Your task to perform on an android device: open app "Lyft - Rideshare, Bikes, Scooters & Transit" (install if not already installed) and enter user name: "deliberating@gmail.com" and password: "preyed" Image 0: 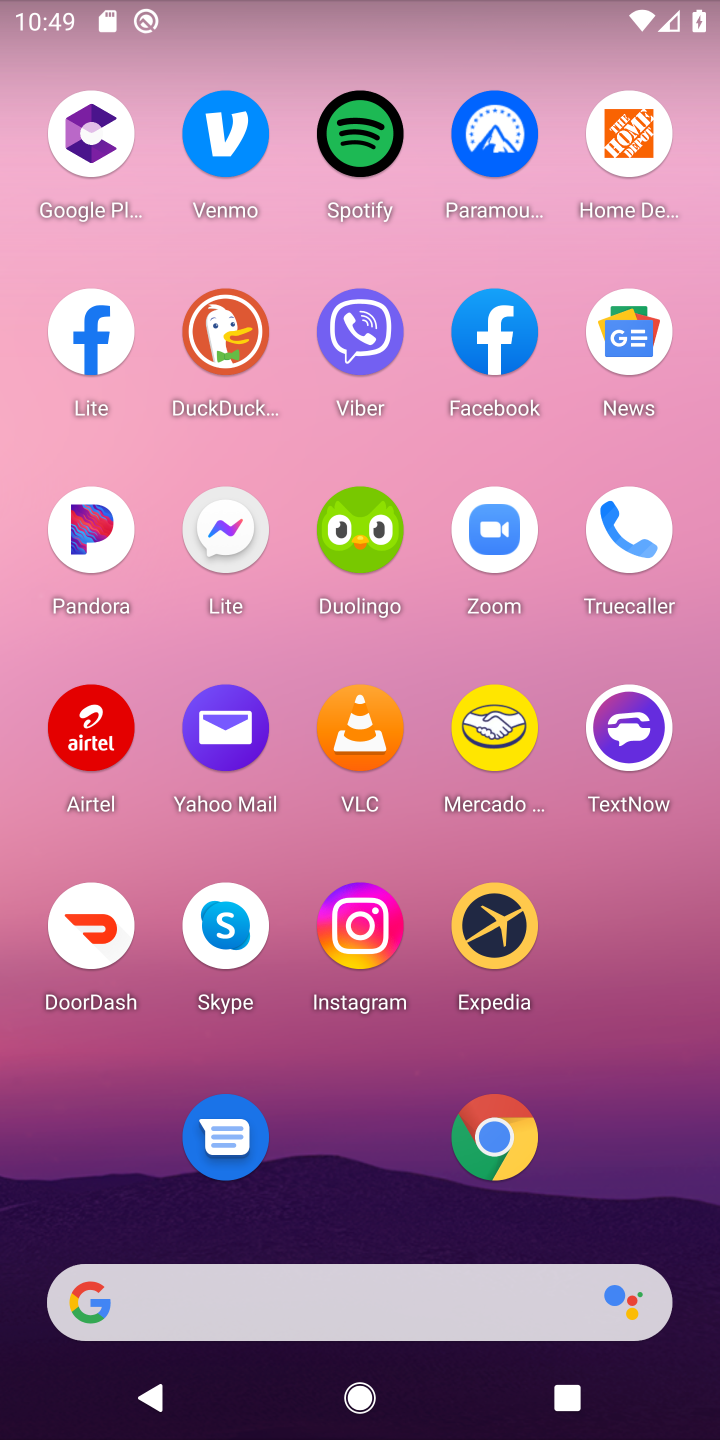
Step 0: drag from (317, 1200) to (332, 471)
Your task to perform on an android device: open app "Lyft - Rideshare, Bikes, Scooters & Transit" (install if not already installed) and enter user name: "deliberating@gmail.com" and password: "preyed" Image 1: 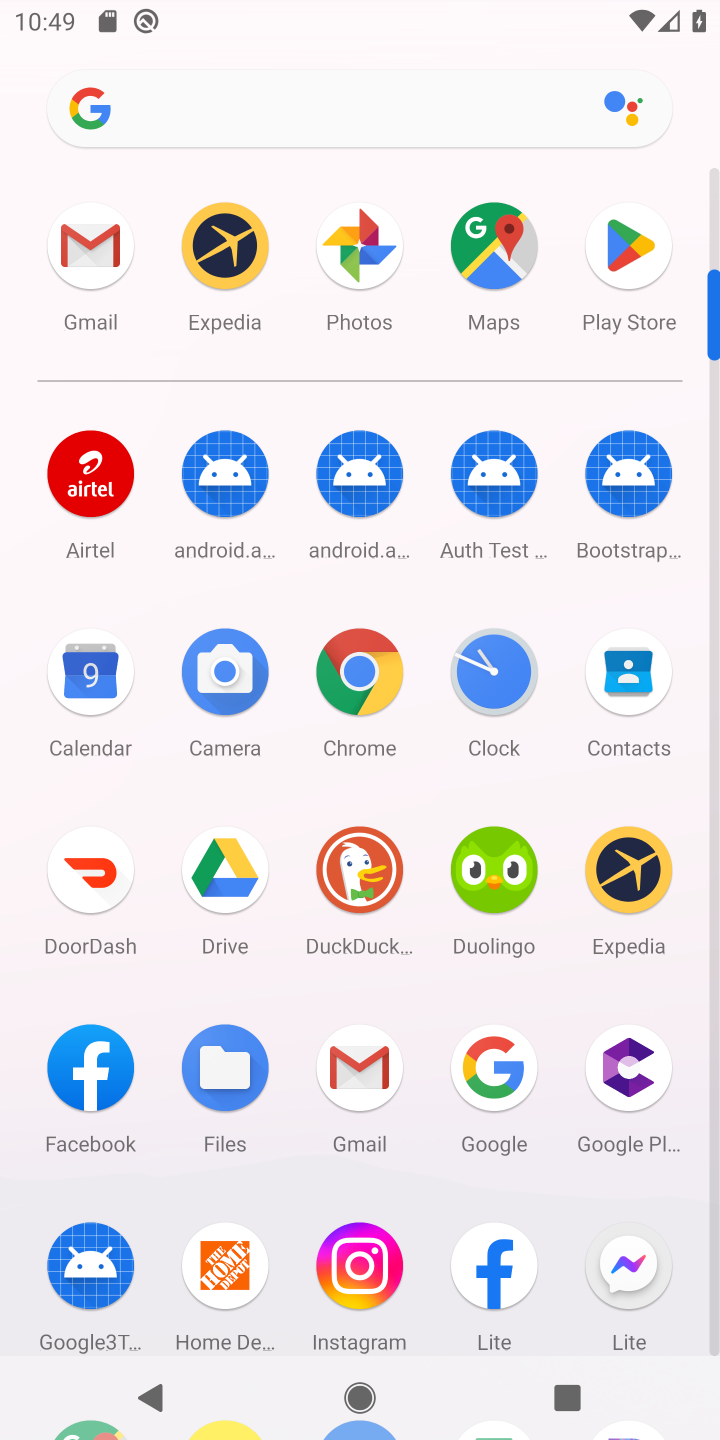
Step 1: click (620, 258)
Your task to perform on an android device: open app "Lyft - Rideshare, Bikes, Scooters & Transit" (install if not already installed) and enter user name: "deliberating@gmail.com" and password: "preyed" Image 2: 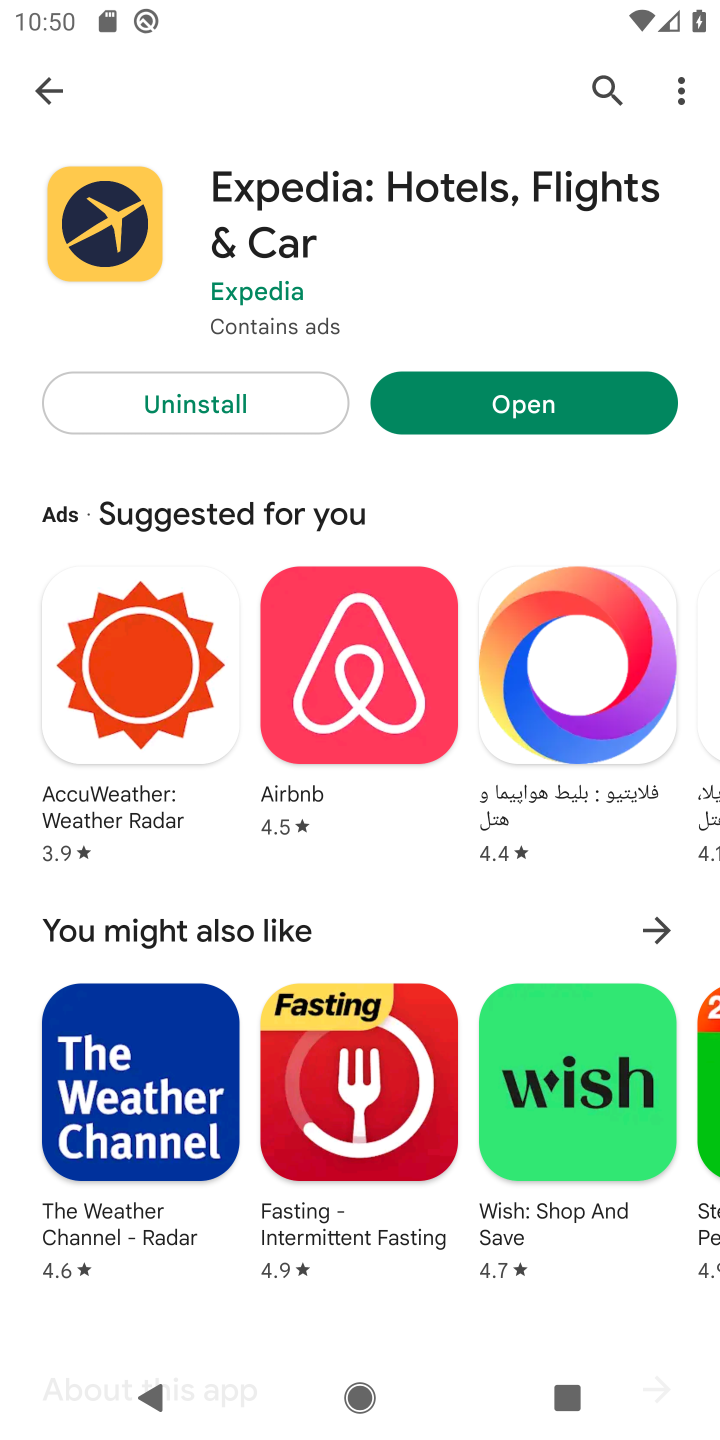
Step 2: click (619, 105)
Your task to perform on an android device: open app "Lyft - Rideshare, Bikes, Scooters & Transit" (install if not already installed) and enter user name: "deliberating@gmail.com" and password: "preyed" Image 3: 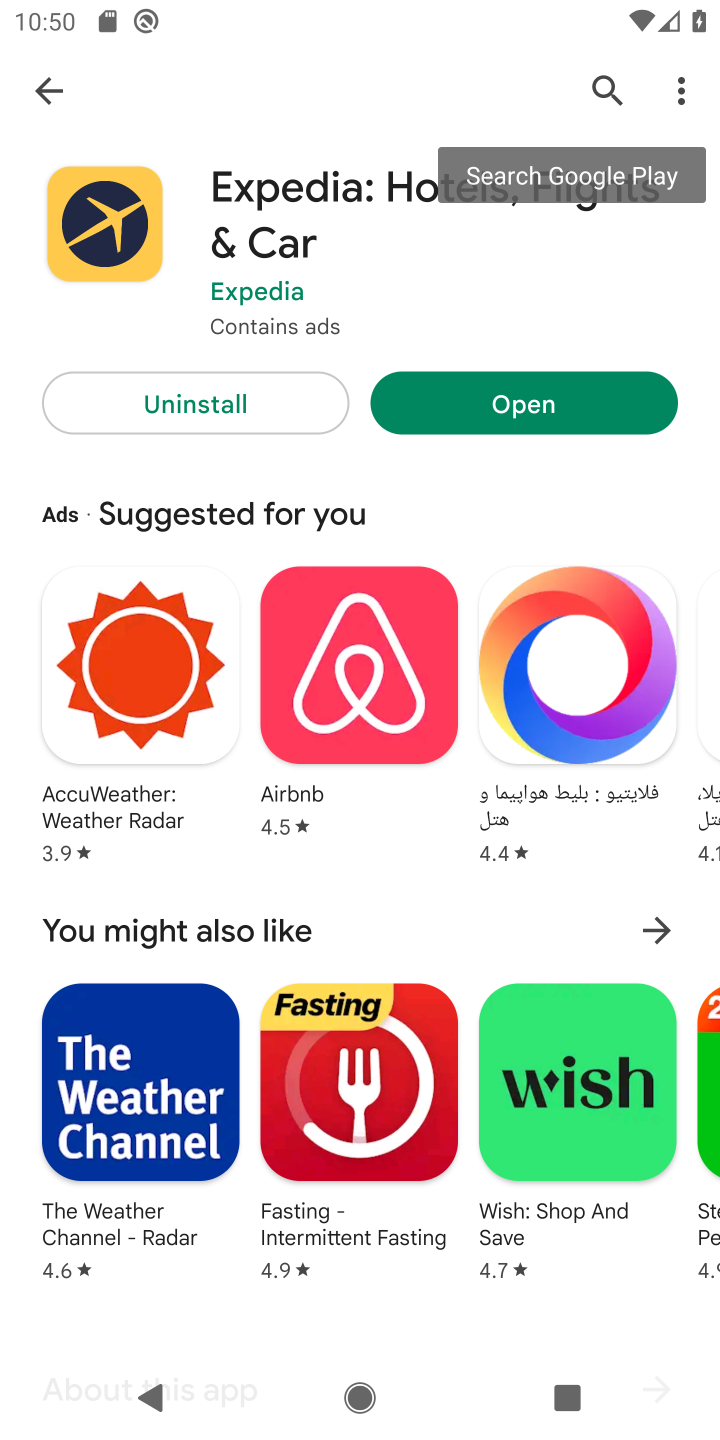
Step 3: click (589, 81)
Your task to perform on an android device: open app "Lyft - Rideshare, Bikes, Scooters & Transit" (install if not already installed) and enter user name: "deliberating@gmail.com" and password: "preyed" Image 4: 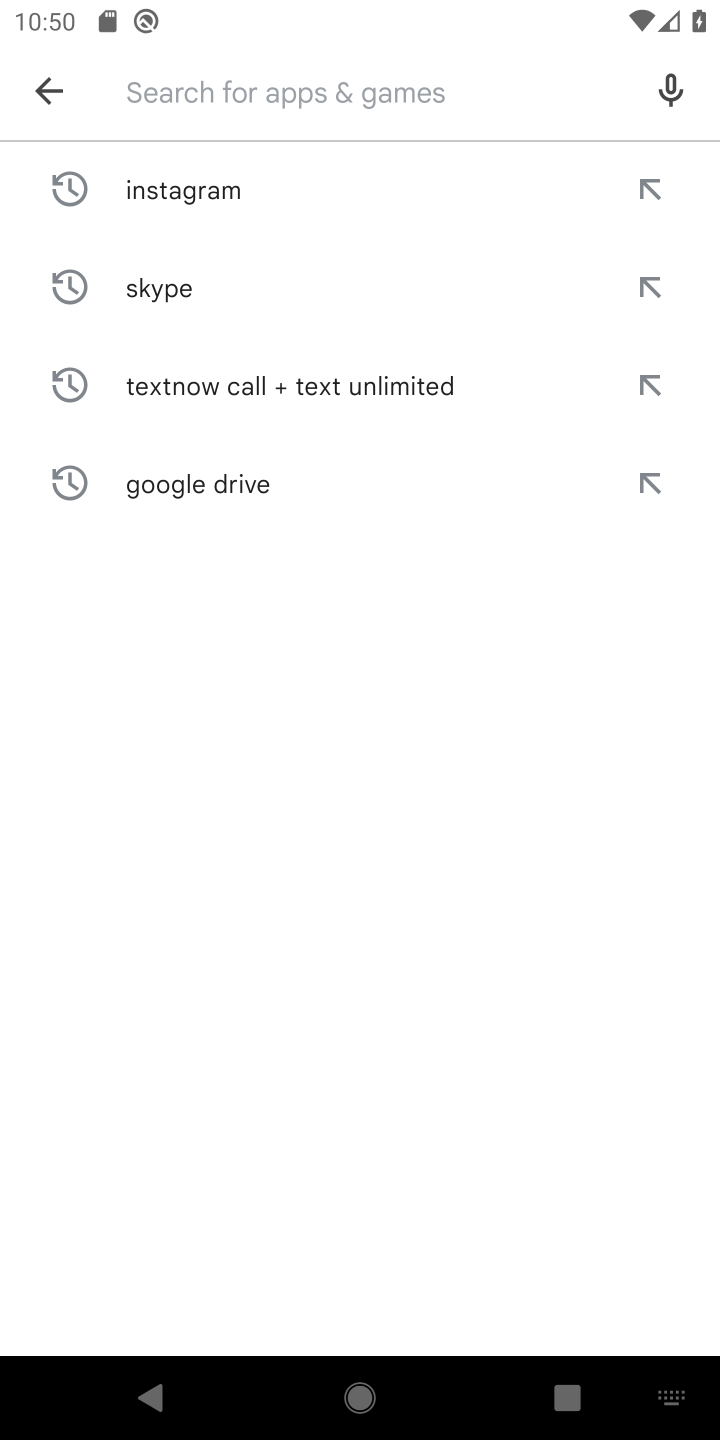
Step 4: type "Lyft - Rideshare, Bikes, Scooters & Transit"
Your task to perform on an android device: open app "Lyft - Rideshare, Bikes, Scooters & Transit" (install if not already installed) and enter user name: "deliberating@gmail.com" and password: "preyed" Image 5: 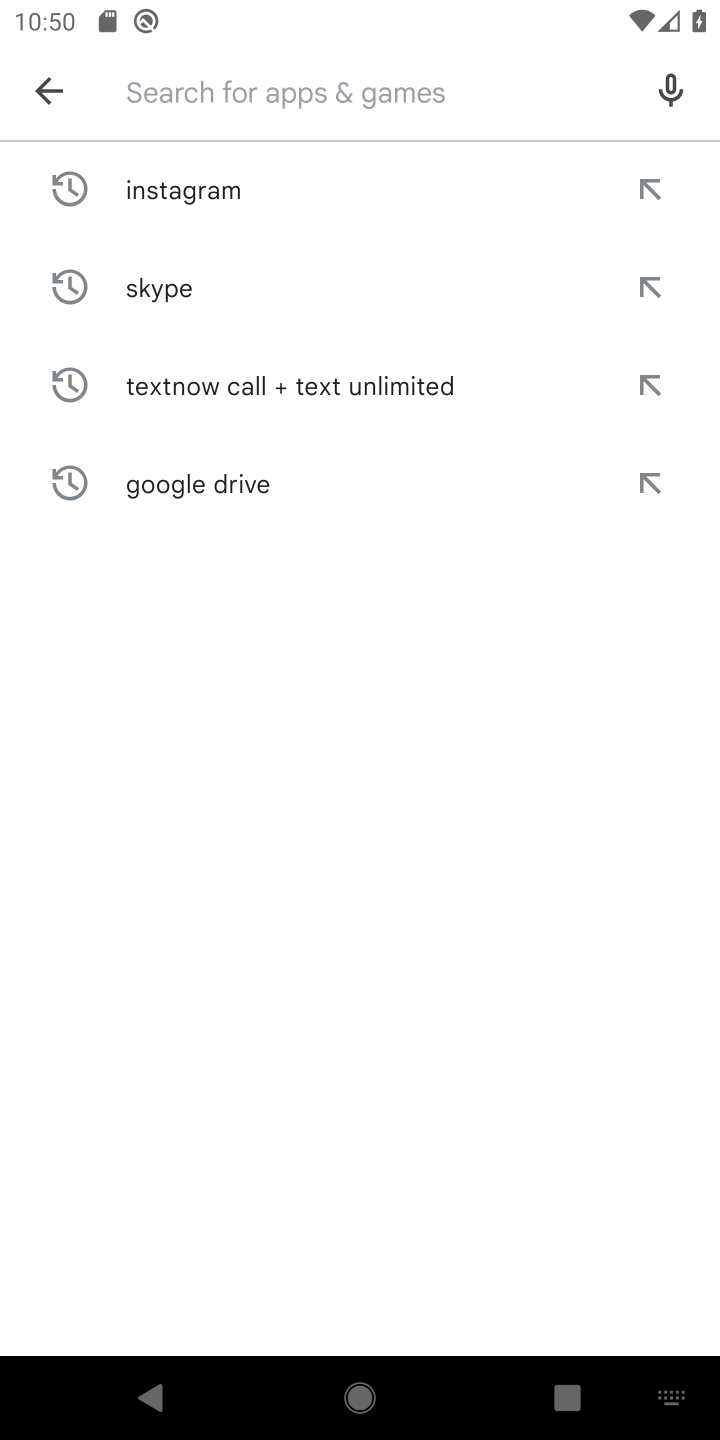
Step 5: click (277, 91)
Your task to perform on an android device: open app "Lyft - Rideshare, Bikes, Scooters & Transit" (install if not already installed) and enter user name: "deliberating@gmail.com" and password: "preyed" Image 6: 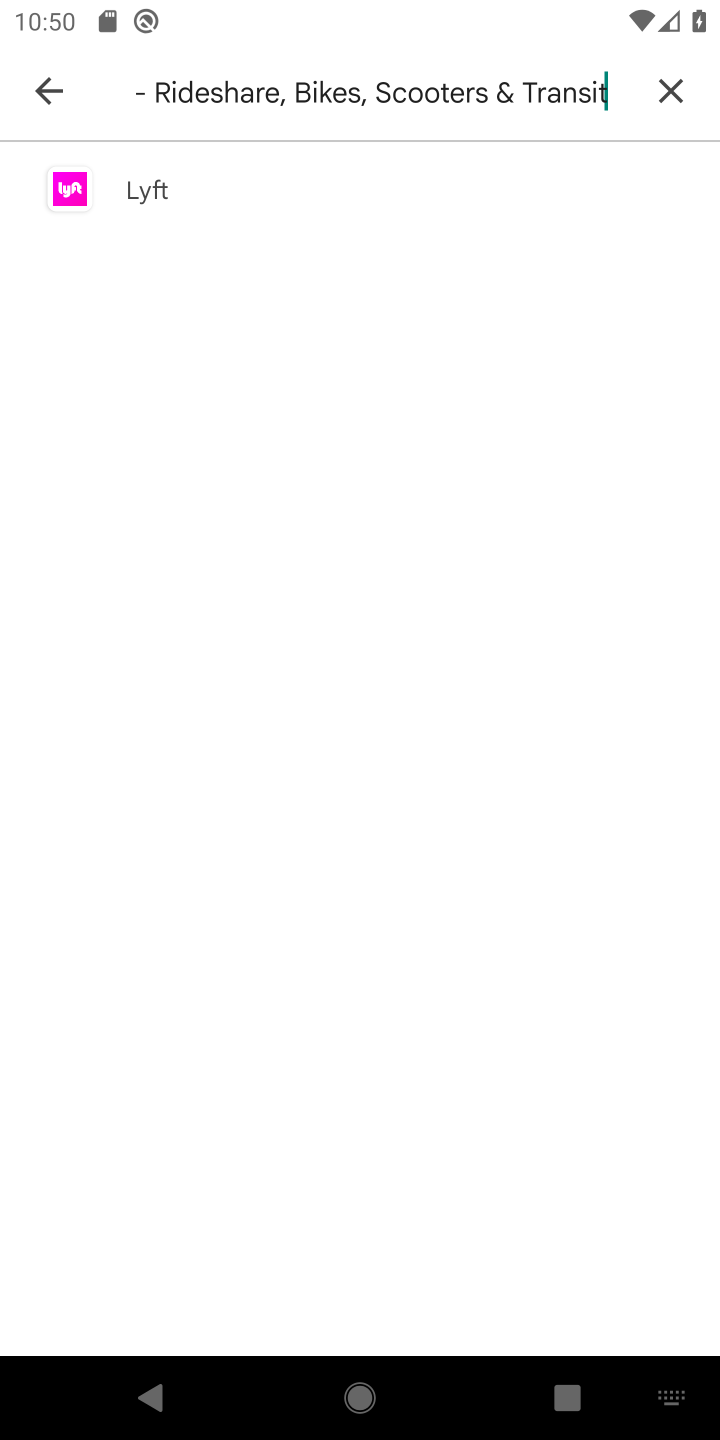
Step 6: type ""
Your task to perform on an android device: open app "Lyft - Rideshare, Bikes, Scooters & Transit" (install if not already installed) and enter user name: "deliberating@gmail.com" and password: "preyed" Image 7: 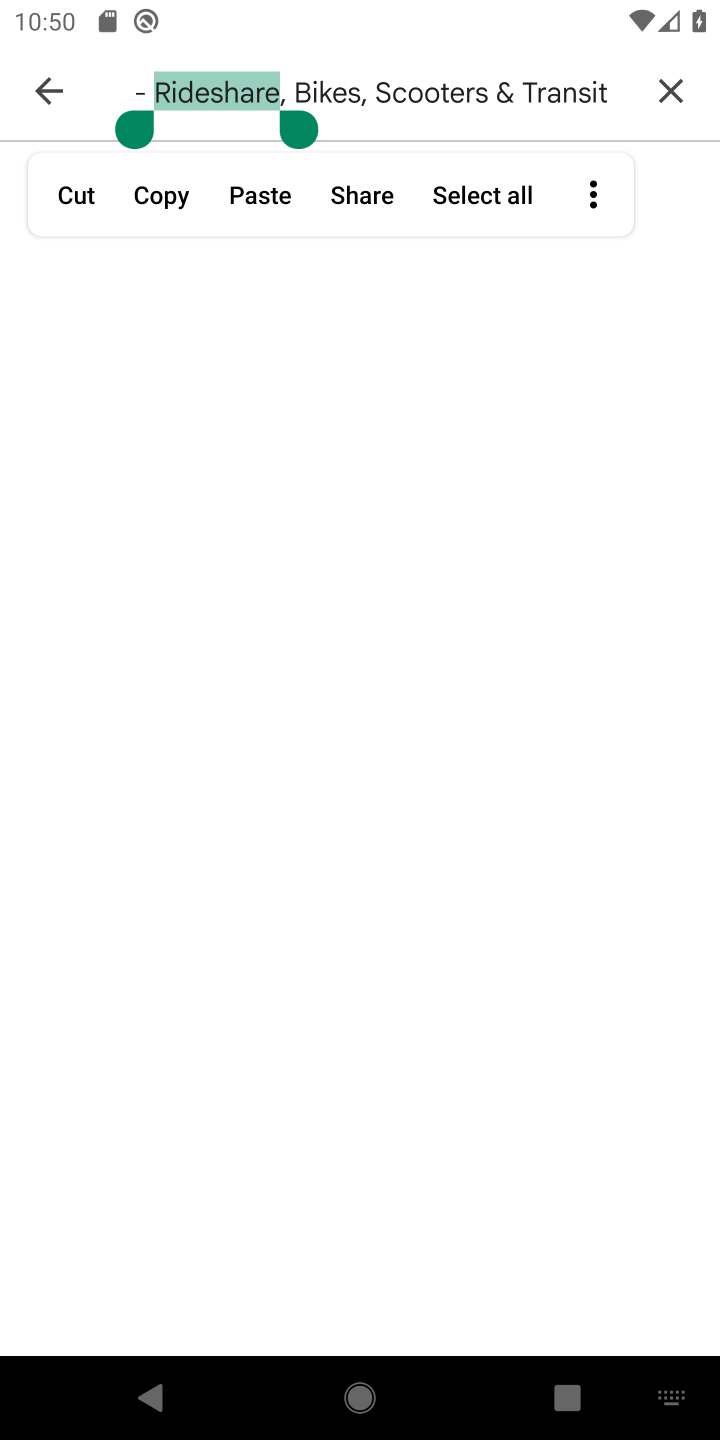
Step 7: click (134, 190)
Your task to perform on an android device: open app "Lyft - Rideshare, Bikes, Scooters & Transit" (install if not already installed) and enter user name: "deliberating@gmail.com" and password: "preyed" Image 8: 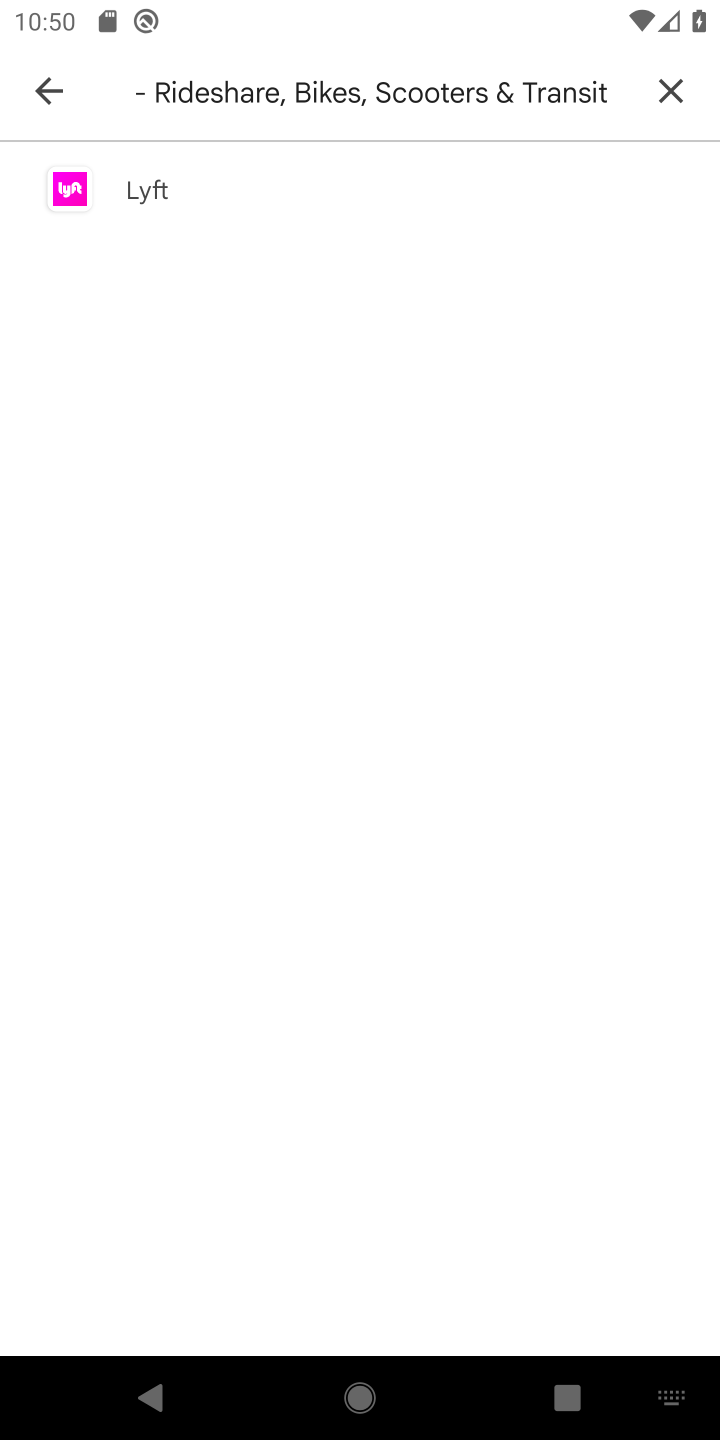
Step 8: click (160, 187)
Your task to perform on an android device: open app "Lyft - Rideshare, Bikes, Scooters & Transit" (install if not already installed) and enter user name: "deliberating@gmail.com" and password: "preyed" Image 9: 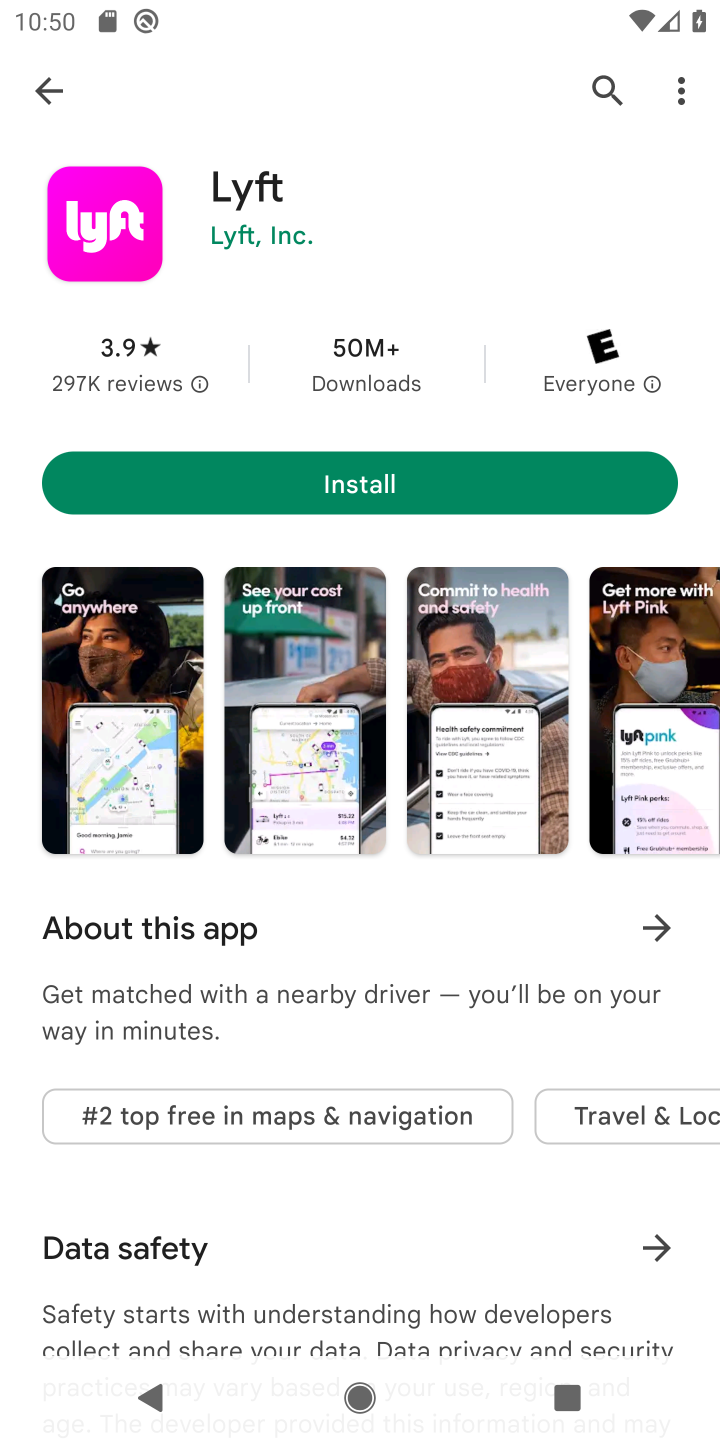
Step 9: click (422, 484)
Your task to perform on an android device: open app "Lyft - Rideshare, Bikes, Scooters & Transit" (install if not already installed) and enter user name: "deliberating@gmail.com" and password: "preyed" Image 10: 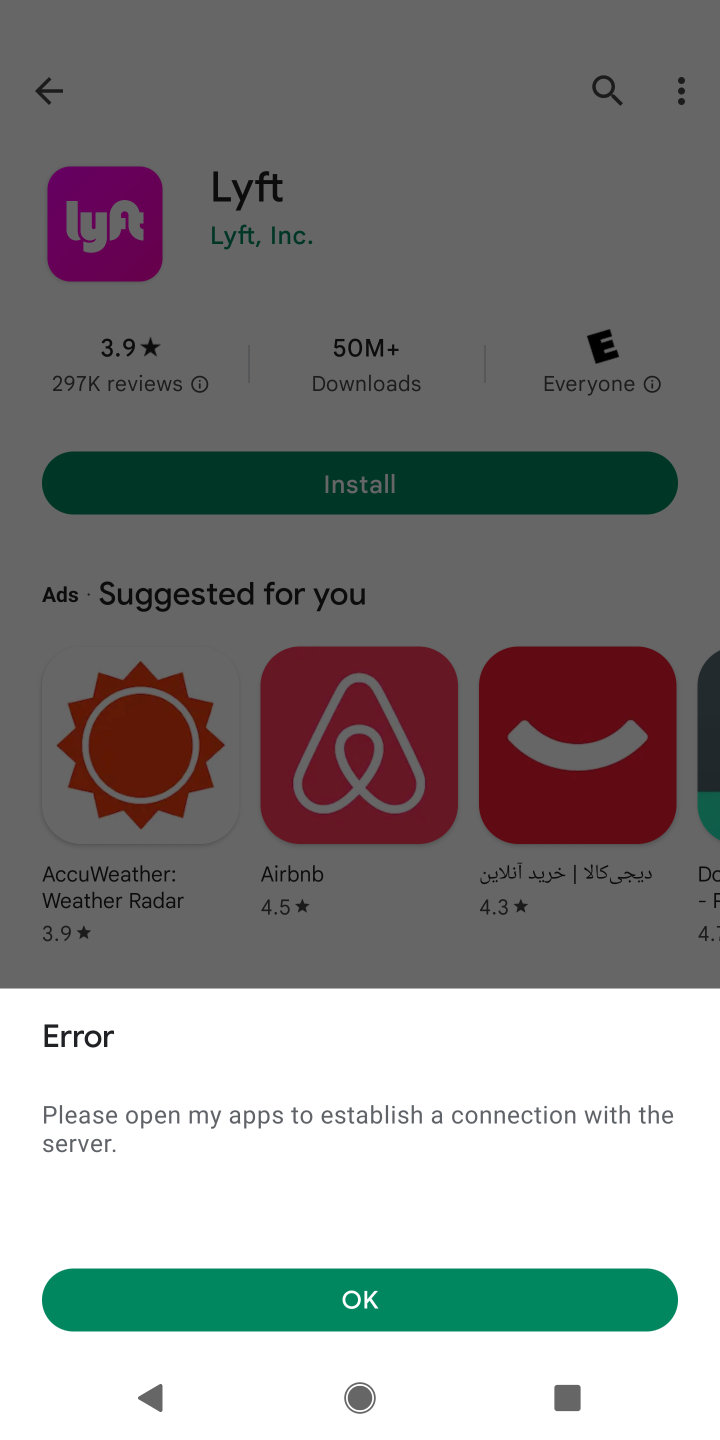
Step 10: task complete